Your task to perform on an android device: show emergency info Image 0: 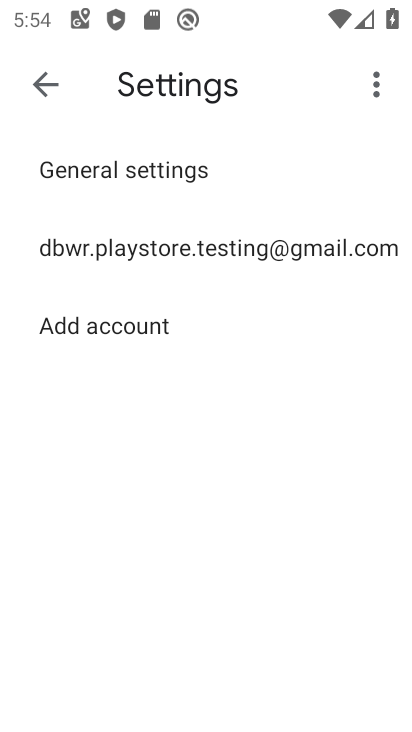
Step 0: press home button
Your task to perform on an android device: show emergency info Image 1: 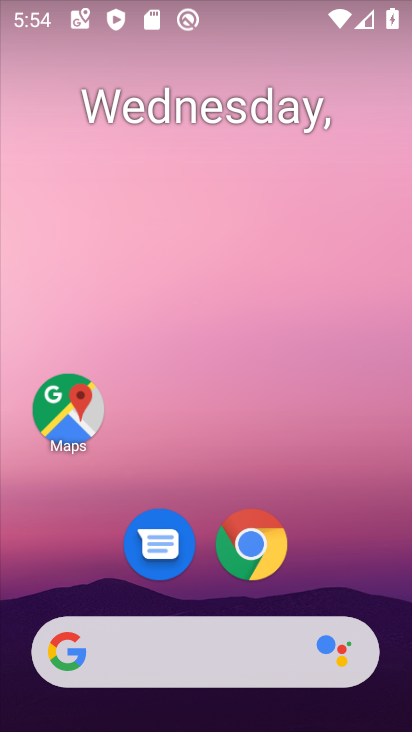
Step 1: drag from (363, 576) to (260, 6)
Your task to perform on an android device: show emergency info Image 2: 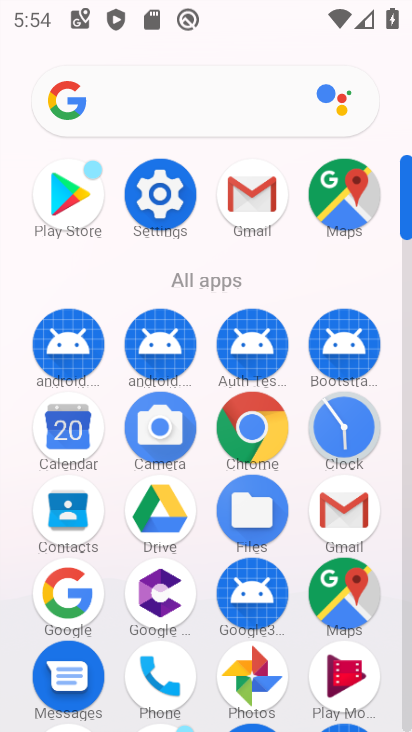
Step 2: click (155, 216)
Your task to perform on an android device: show emergency info Image 3: 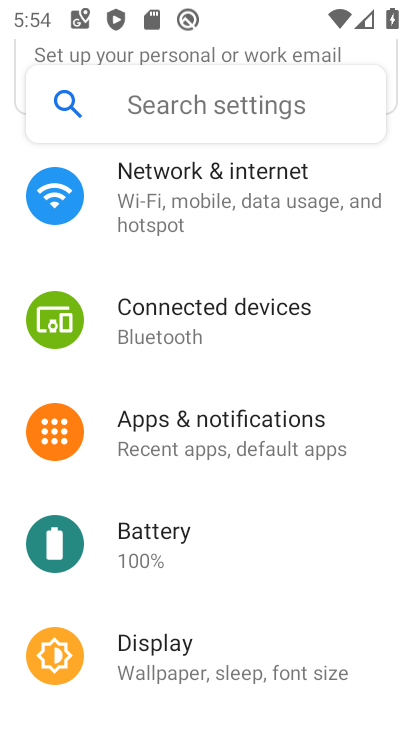
Step 3: drag from (282, 643) to (248, 51)
Your task to perform on an android device: show emergency info Image 4: 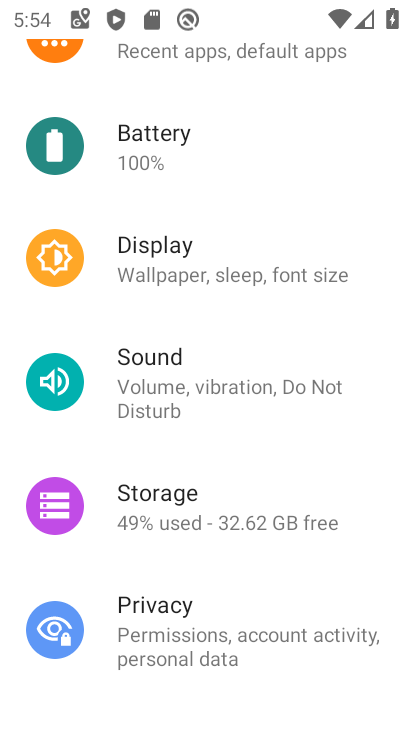
Step 4: drag from (287, 593) to (264, 89)
Your task to perform on an android device: show emergency info Image 5: 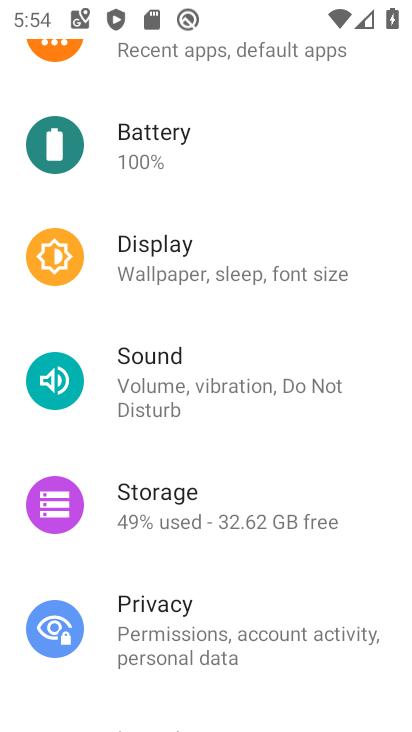
Step 5: drag from (256, 512) to (248, 77)
Your task to perform on an android device: show emergency info Image 6: 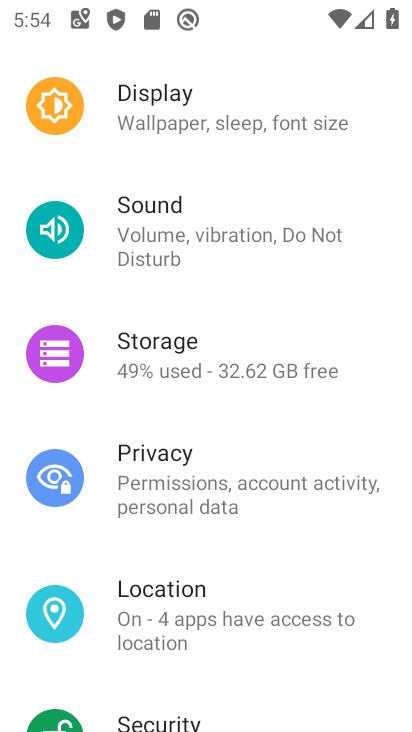
Step 6: drag from (275, 662) to (244, 115)
Your task to perform on an android device: show emergency info Image 7: 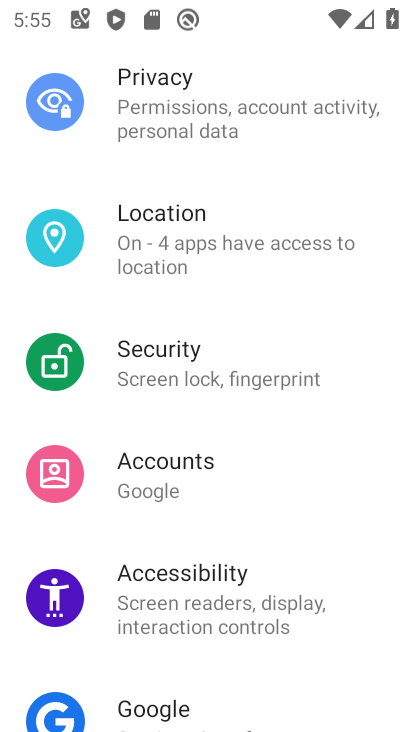
Step 7: drag from (272, 641) to (281, 124)
Your task to perform on an android device: show emergency info Image 8: 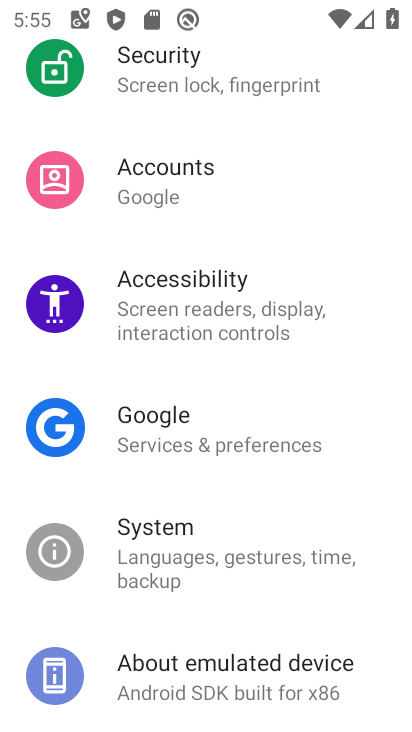
Step 8: click (259, 679)
Your task to perform on an android device: show emergency info Image 9: 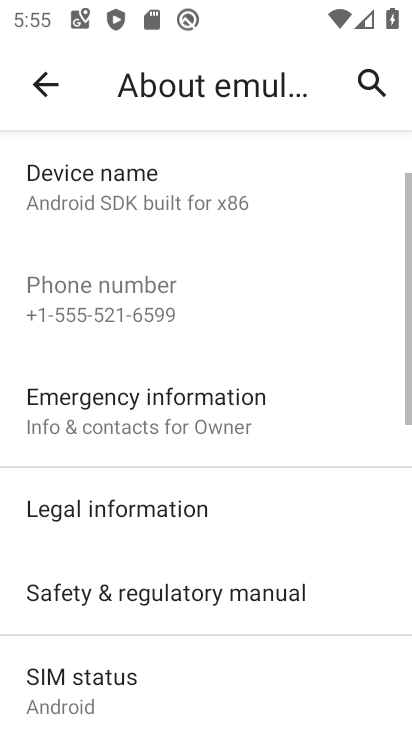
Step 9: click (163, 393)
Your task to perform on an android device: show emergency info Image 10: 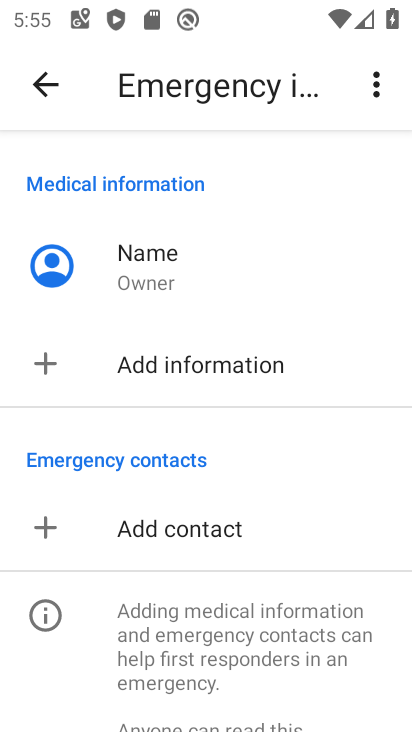
Step 10: task complete